Your task to perform on an android device: read, delete, or share a saved page in the chrome app Image 0: 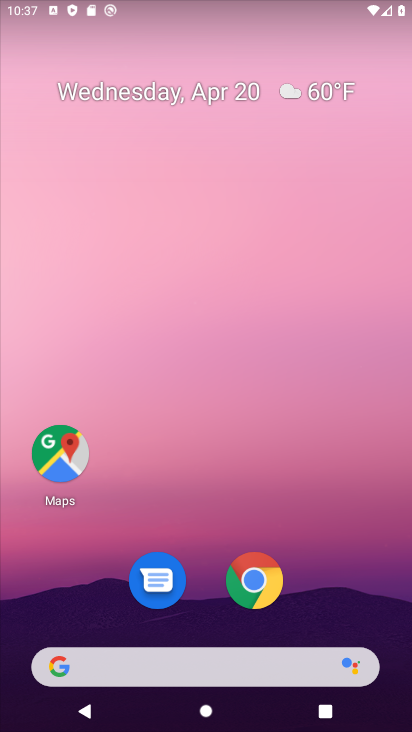
Step 0: click (270, 607)
Your task to perform on an android device: read, delete, or share a saved page in the chrome app Image 1: 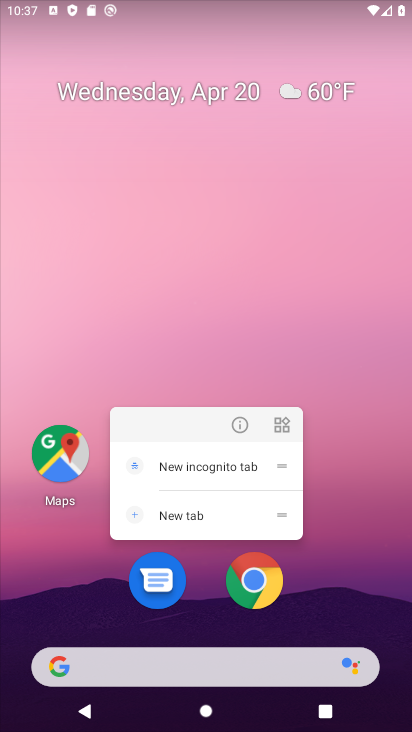
Step 1: click (263, 587)
Your task to perform on an android device: read, delete, or share a saved page in the chrome app Image 2: 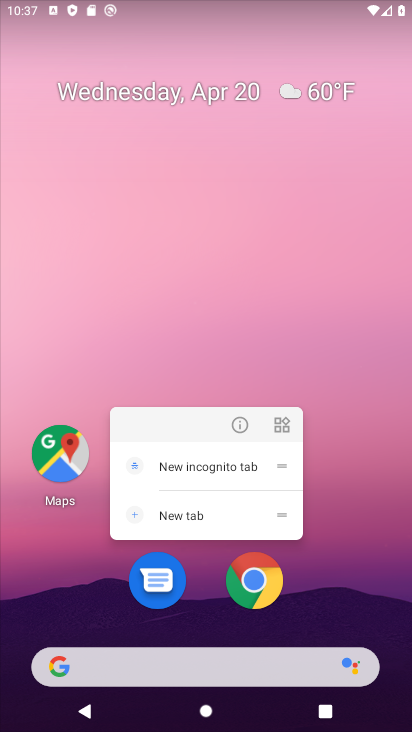
Step 2: click (263, 587)
Your task to perform on an android device: read, delete, or share a saved page in the chrome app Image 3: 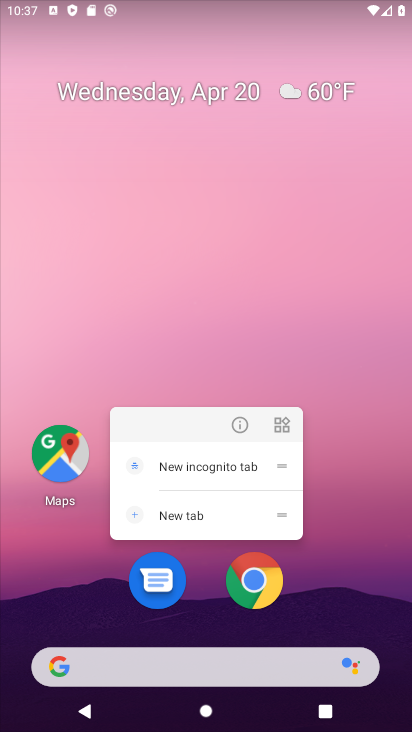
Step 3: click (263, 587)
Your task to perform on an android device: read, delete, or share a saved page in the chrome app Image 4: 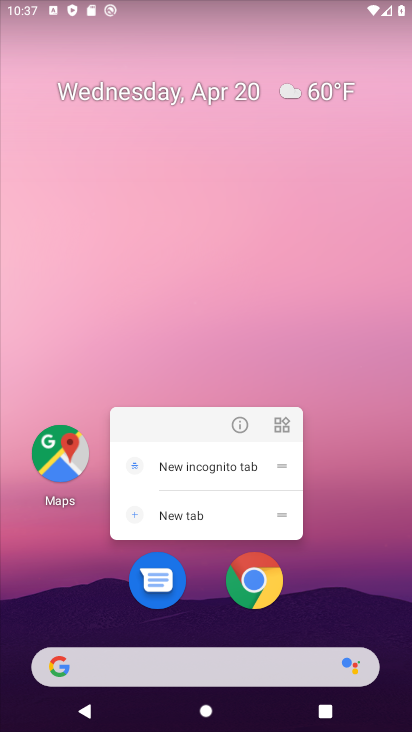
Step 4: click (263, 587)
Your task to perform on an android device: read, delete, or share a saved page in the chrome app Image 5: 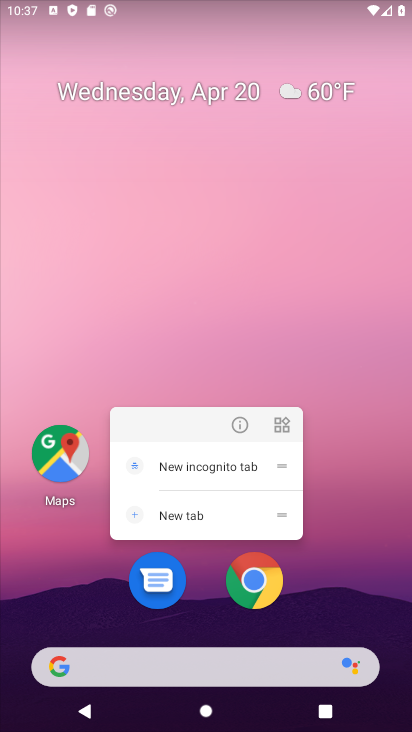
Step 5: click (263, 587)
Your task to perform on an android device: read, delete, or share a saved page in the chrome app Image 6: 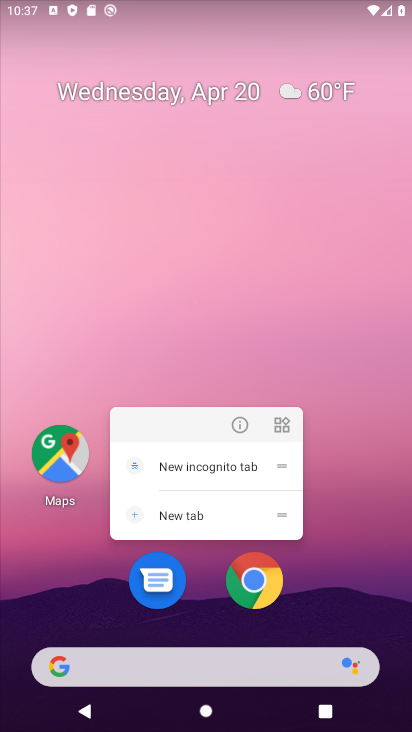
Step 6: click (263, 587)
Your task to perform on an android device: read, delete, or share a saved page in the chrome app Image 7: 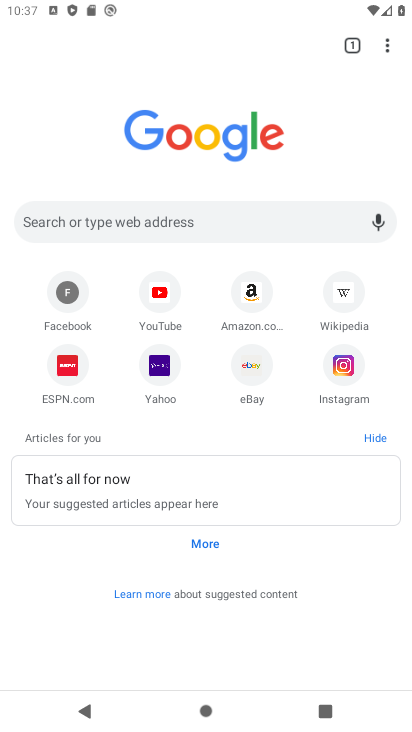
Step 7: click (386, 42)
Your task to perform on an android device: read, delete, or share a saved page in the chrome app Image 8: 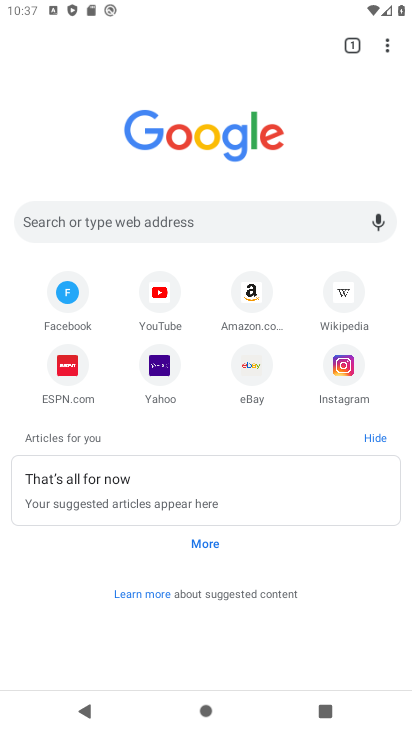
Step 8: task complete